Your task to perform on an android device: turn notification dots on Image 0: 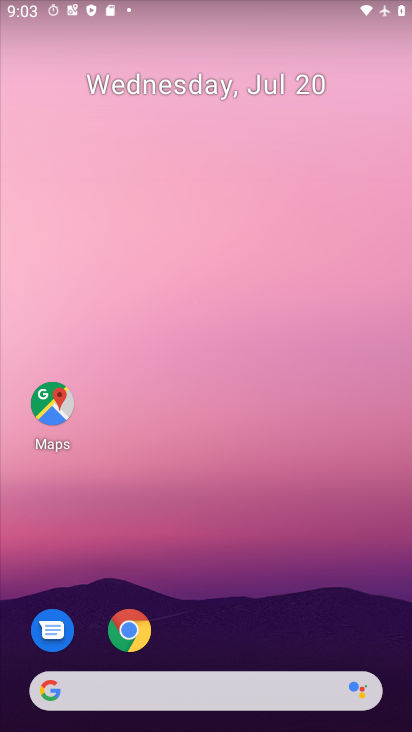
Step 0: drag from (247, 679) to (252, 116)
Your task to perform on an android device: turn notification dots on Image 1: 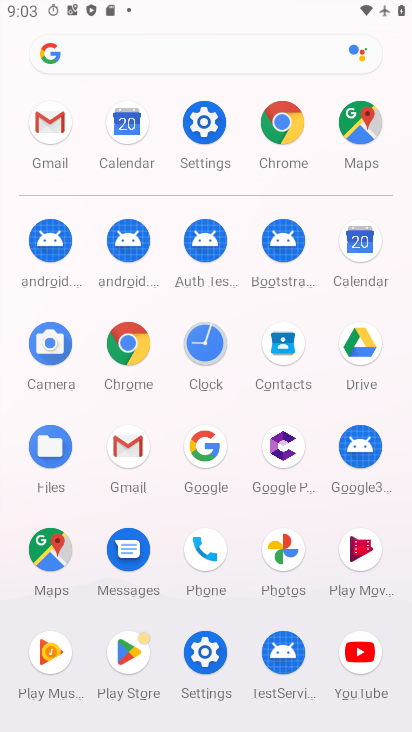
Step 1: click (202, 668)
Your task to perform on an android device: turn notification dots on Image 2: 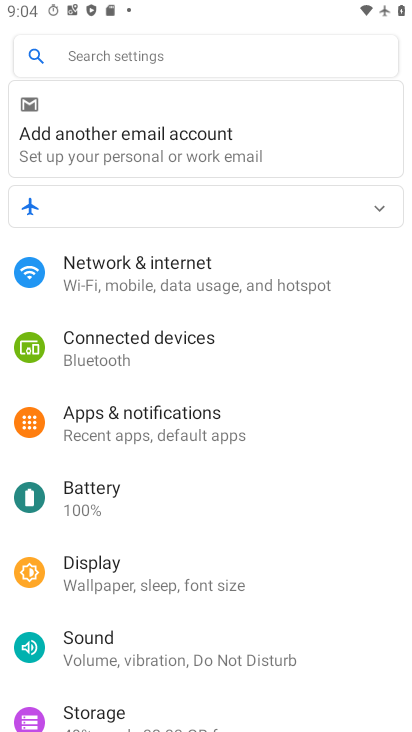
Step 2: click (151, 439)
Your task to perform on an android device: turn notification dots on Image 3: 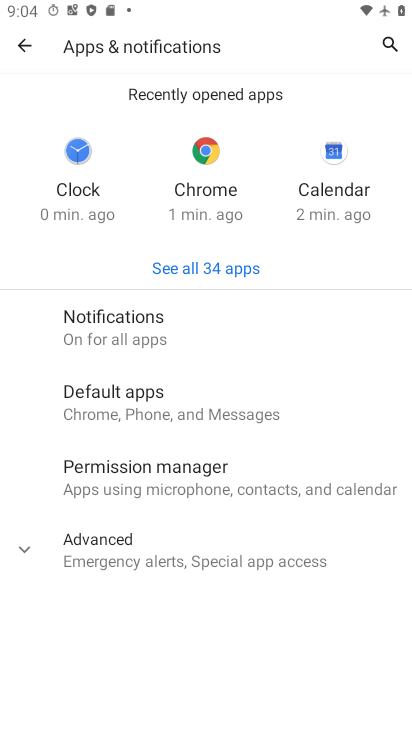
Step 3: click (148, 315)
Your task to perform on an android device: turn notification dots on Image 4: 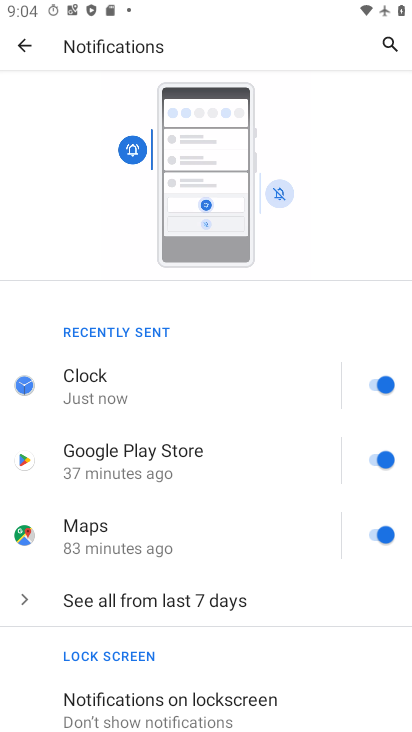
Step 4: drag from (172, 600) to (221, 285)
Your task to perform on an android device: turn notification dots on Image 5: 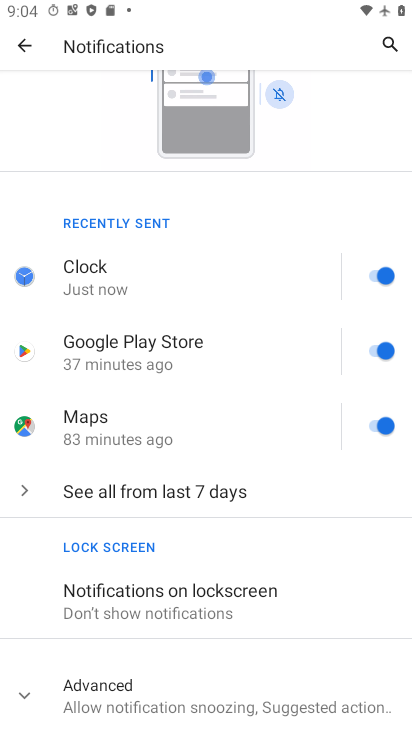
Step 5: click (156, 716)
Your task to perform on an android device: turn notification dots on Image 6: 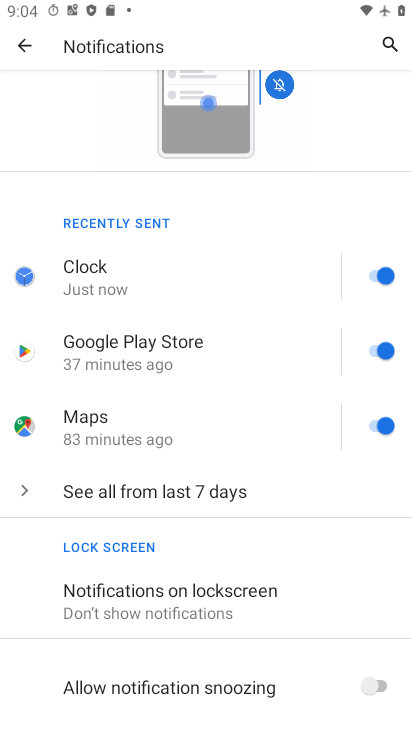
Step 6: task complete